Your task to perform on an android device: change notification settings in the gmail app Image 0: 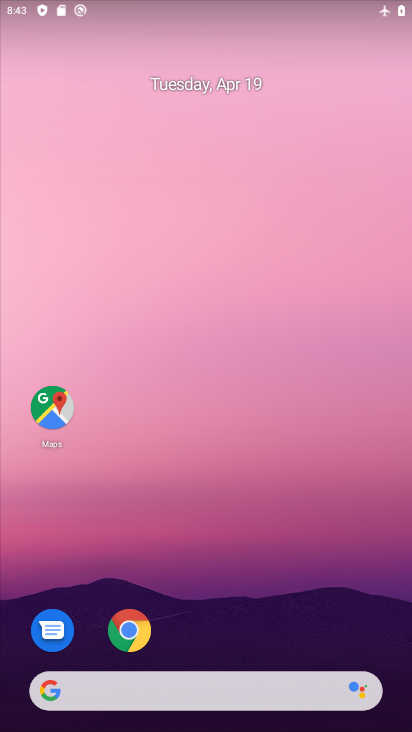
Step 0: drag from (221, 647) to (268, 93)
Your task to perform on an android device: change notification settings in the gmail app Image 1: 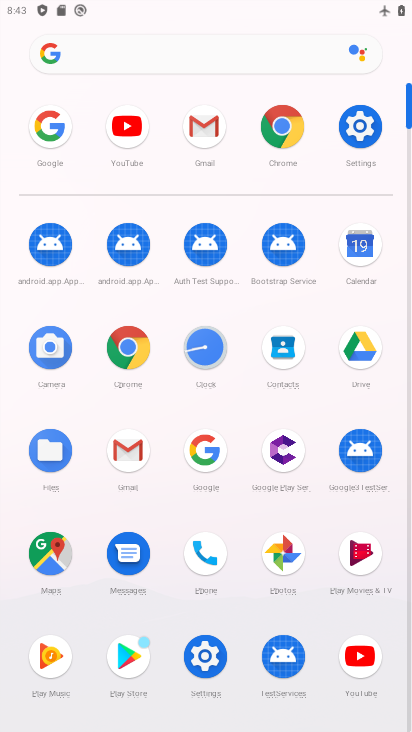
Step 1: click (132, 461)
Your task to perform on an android device: change notification settings in the gmail app Image 2: 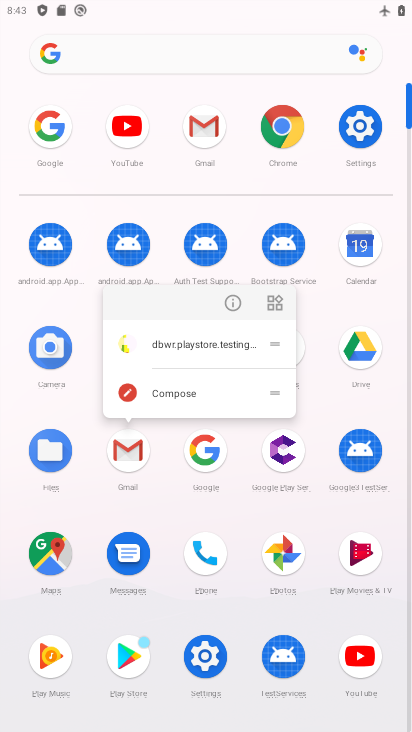
Step 2: click (133, 460)
Your task to perform on an android device: change notification settings in the gmail app Image 3: 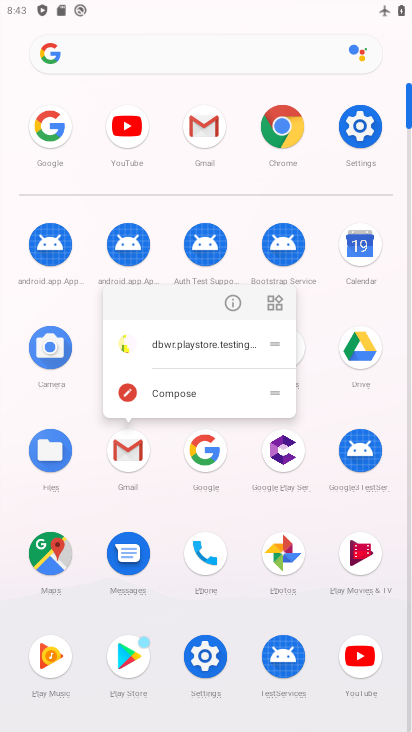
Step 3: click (135, 476)
Your task to perform on an android device: change notification settings in the gmail app Image 4: 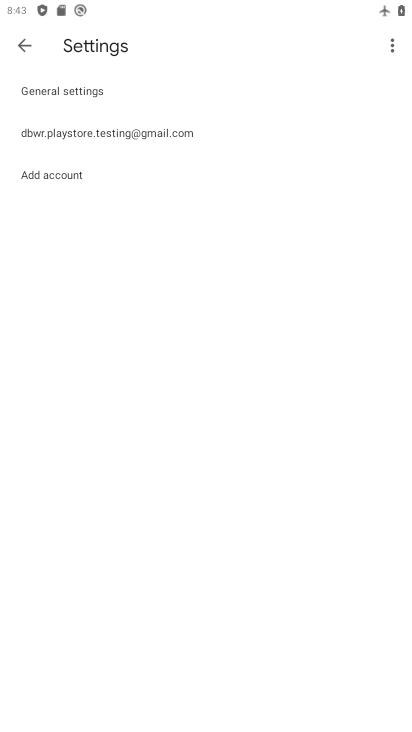
Step 4: click (115, 89)
Your task to perform on an android device: change notification settings in the gmail app Image 5: 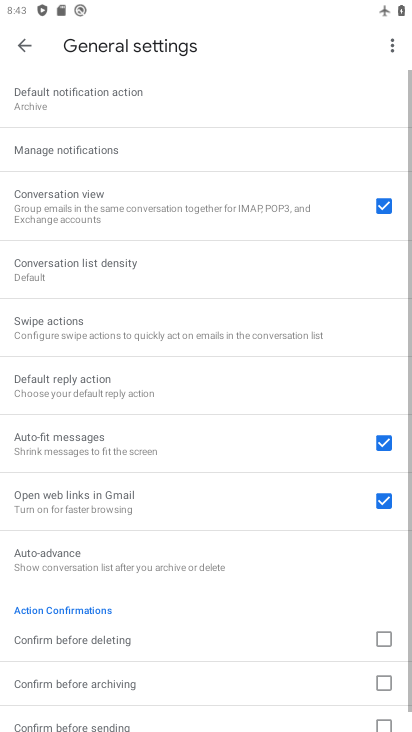
Step 5: click (139, 148)
Your task to perform on an android device: change notification settings in the gmail app Image 6: 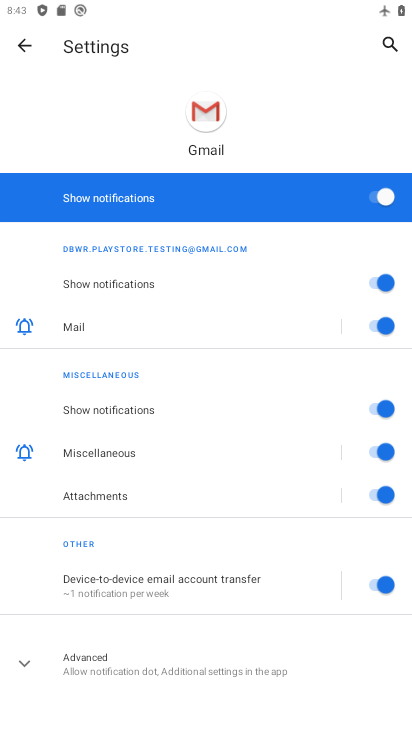
Step 6: click (371, 203)
Your task to perform on an android device: change notification settings in the gmail app Image 7: 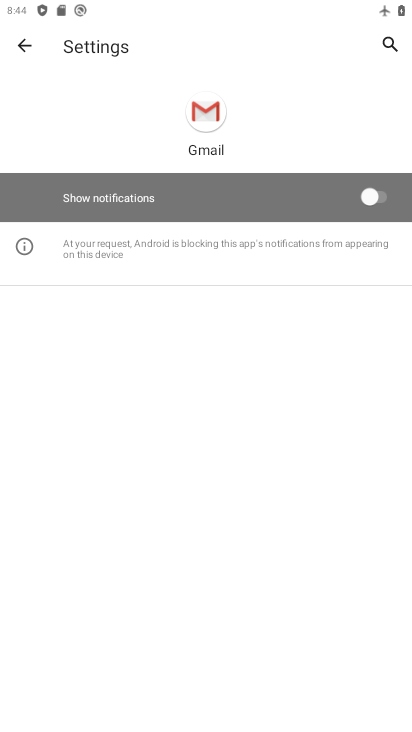
Step 7: task complete